Your task to perform on an android device: visit the assistant section in the google photos Image 0: 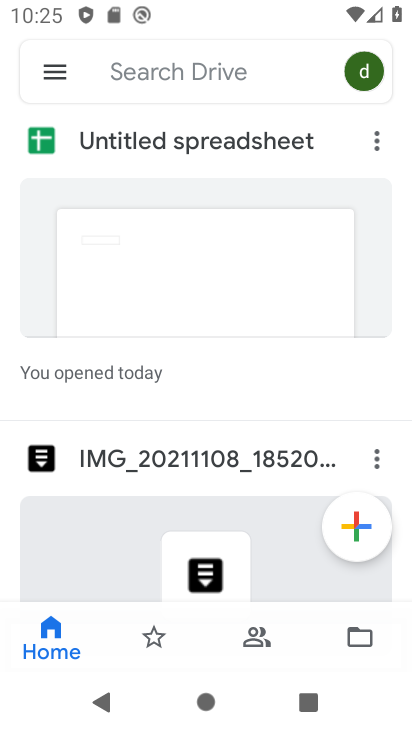
Step 0: press home button
Your task to perform on an android device: visit the assistant section in the google photos Image 1: 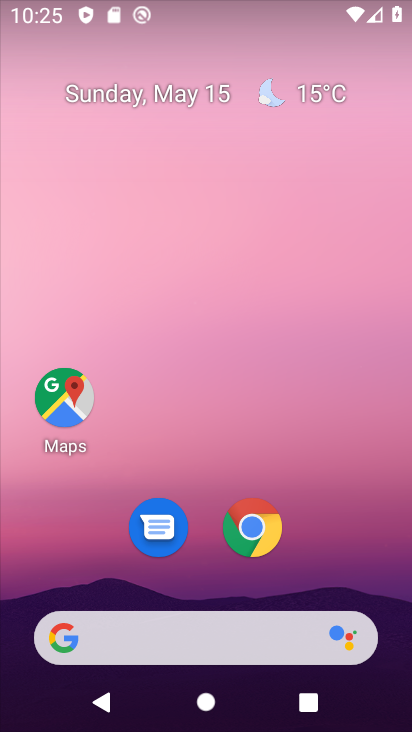
Step 1: drag from (337, 561) to (267, 86)
Your task to perform on an android device: visit the assistant section in the google photos Image 2: 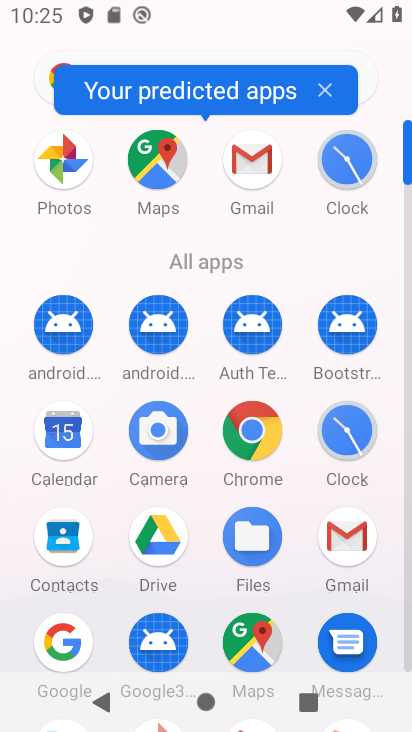
Step 2: drag from (204, 565) to (191, 304)
Your task to perform on an android device: visit the assistant section in the google photos Image 3: 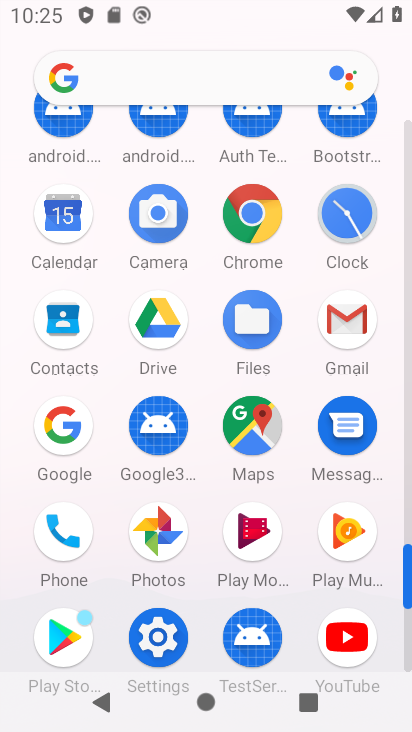
Step 3: click (159, 530)
Your task to perform on an android device: visit the assistant section in the google photos Image 4: 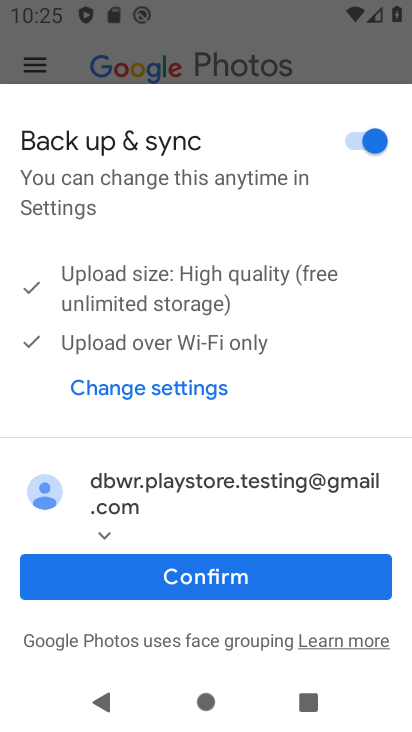
Step 4: click (248, 566)
Your task to perform on an android device: visit the assistant section in the google photos Image 5: 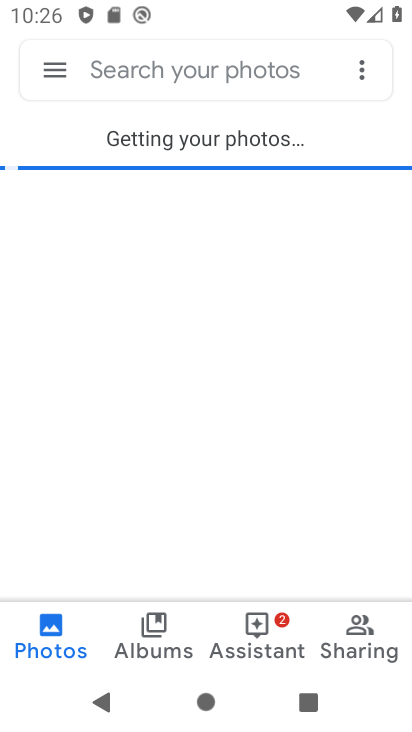
Step 5: click (256, 622)
Your task to perform on an android device: visit the assistant section in the google photos Image 6: 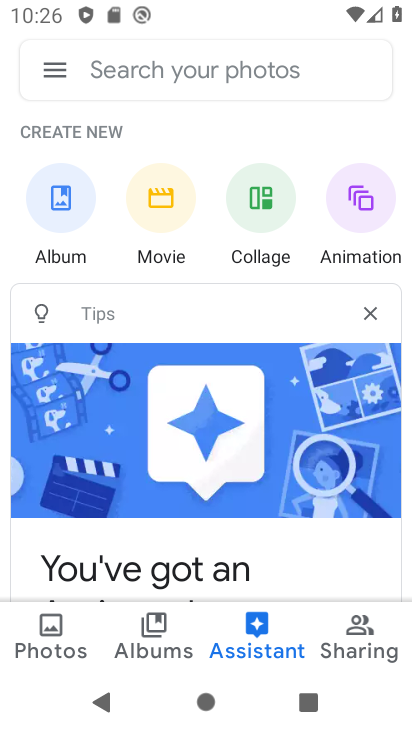
Step 6: task complete